Your task to perform on an android device: set an alarm Image 0: 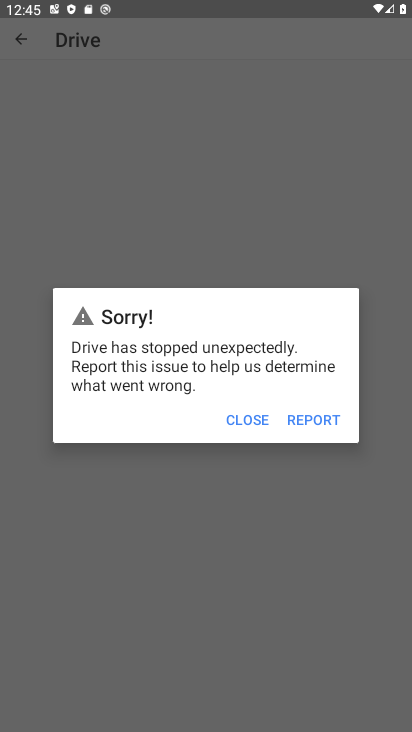
Step 0: press home button
Your task to perform on an android device: set an alarm Image 1: 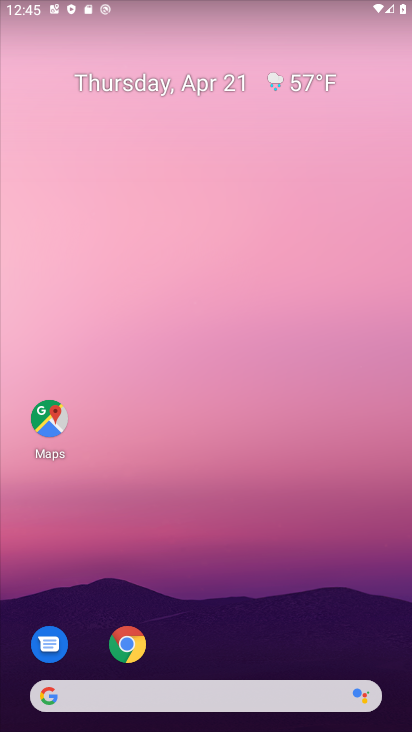
Step 1: drag from (222, 666) to (120, 15)
Your task to perform on an android device: set an alarm Image 2: 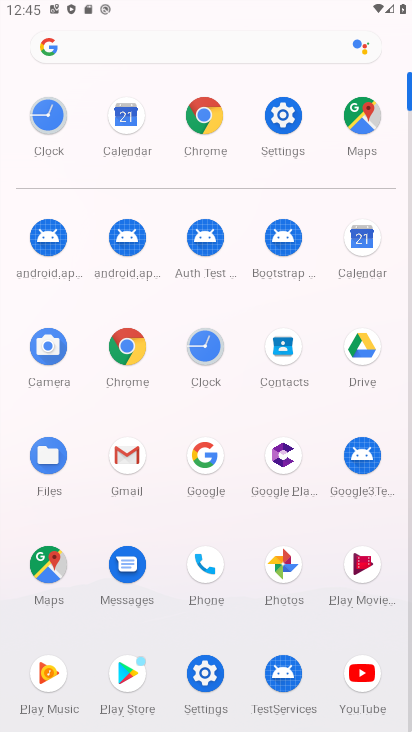
Step 2: click (214, 355)
Your task to perform on an android device: set an alarm Image 3: 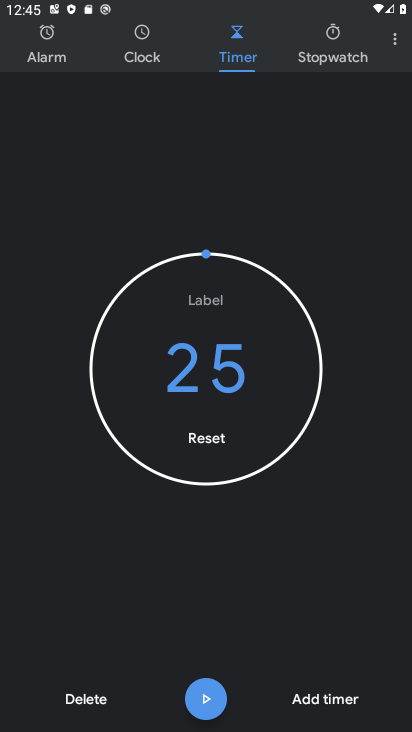
Step 3: click (52, 47)
Your task to perform on an android device: set an alarm Image 4: 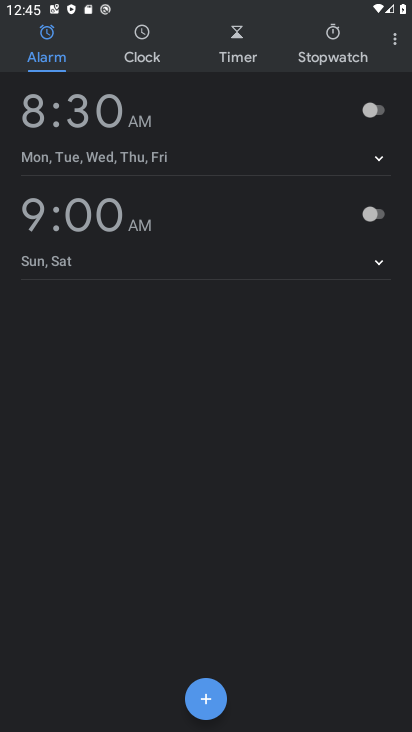
Step 4: click (208, 692)
Your task to perform on an android device: set an alarm Image 5: 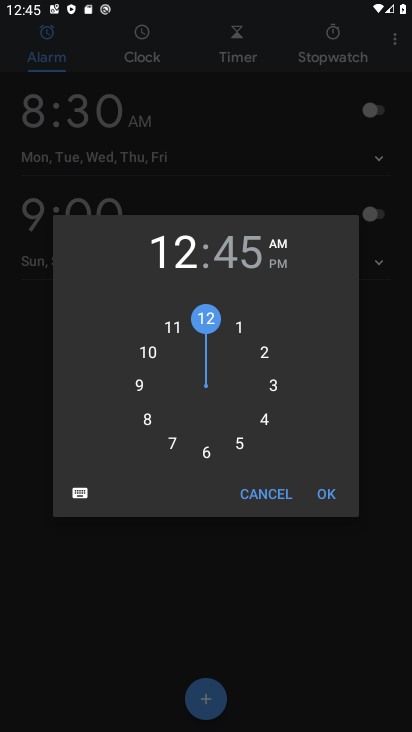
Step 5: click (317, 499)
Your task to perform on an android device: set an alarm Image 6: 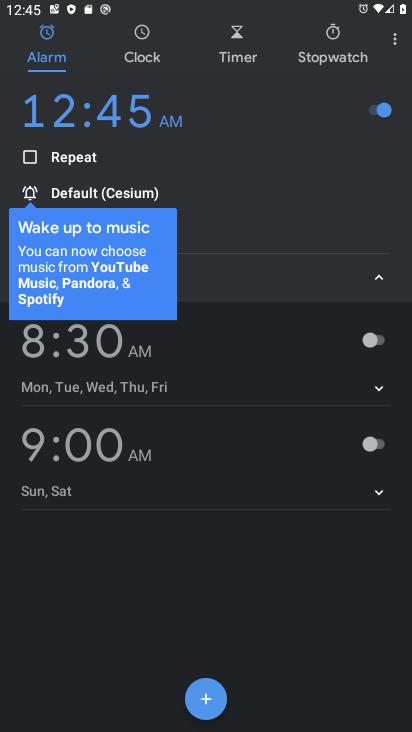
Step 6: task complete